Your task to perform on an android device: Search for Italian restaurants on Maps Image 0: 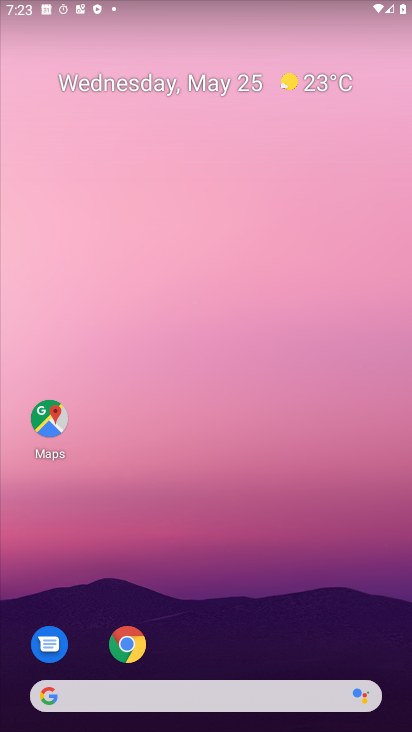
Step 0: press home button
Your task to perform on an android device: Search for Italian restaurants on Maps Image 1: 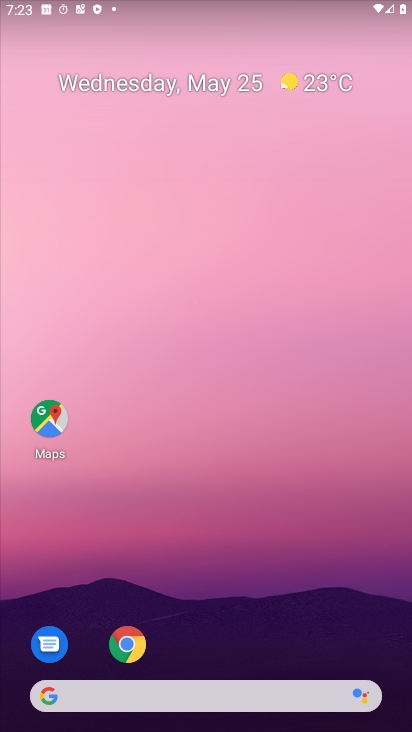
Step 1: drag from (270, 700) to (237, 127)
Your task to perform on an android device: Search for Italian restaurants on Maps Image 2: 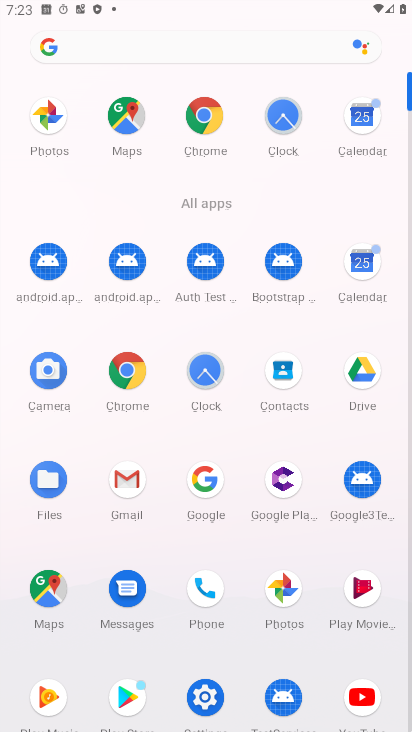
Step 2: click (123, 114)
Your task to perform on an android device: Search for Italian restaurants on Maps Image 3: 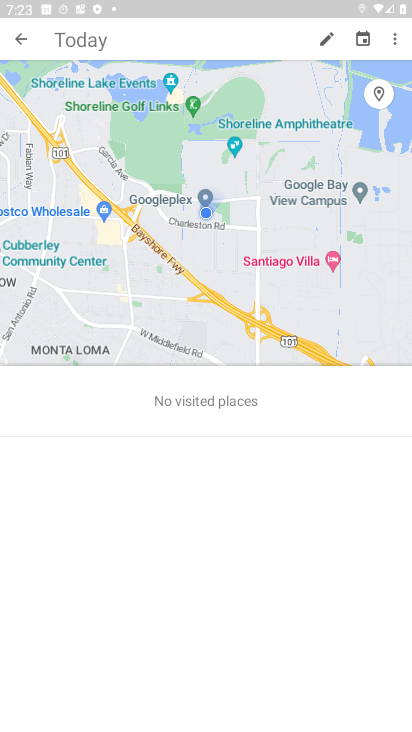
Step 3: click (21, 39)
Your task to perform on an android device: Search for Italian restaurants on Maps Image 4: 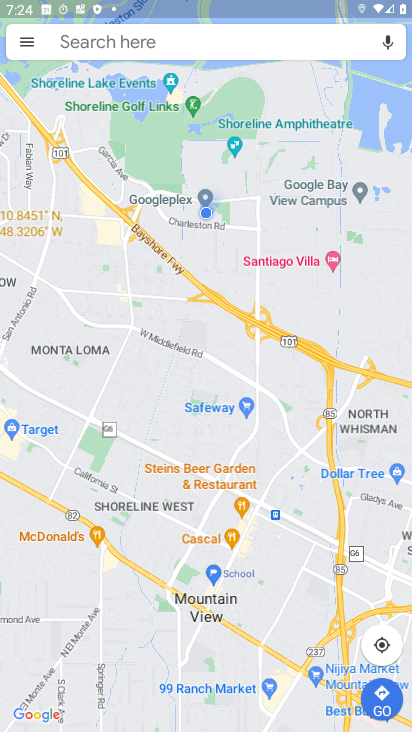
Step 4: click (231, 45)
Your task to perform on an android device: Search for Italian restaurants on Maps Image 5: 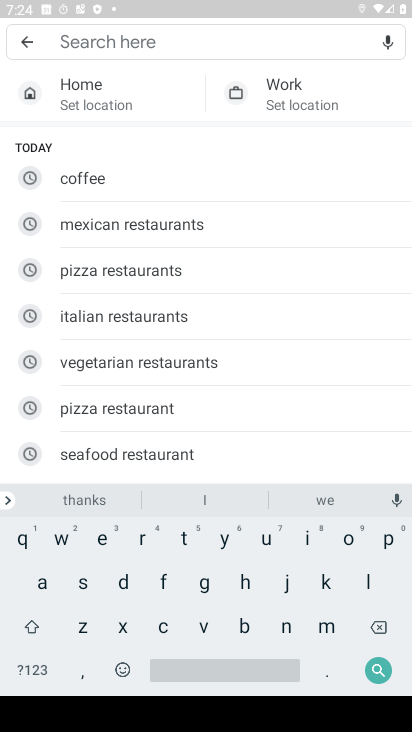
Step 5: click (306, 547)
Your task to perform on an android device: Search for Italian restaurants on Maps Image 6: 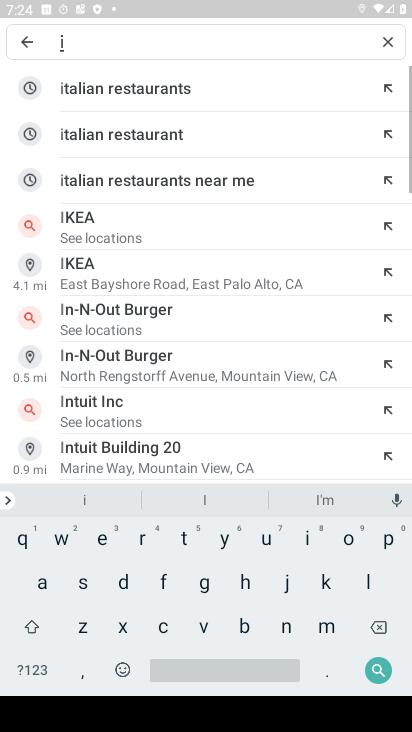
Step 6: click (158, 97)
Your task to perform on an android device: Search for Italian restaurants on Maps Image 7: 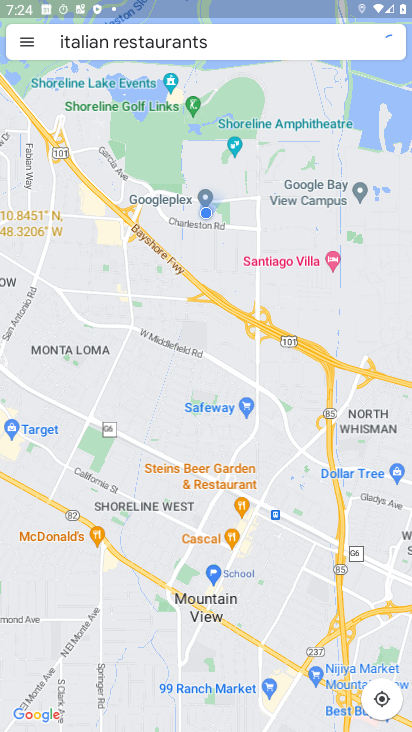
Step 7: task complete